Your task to perform on an android device: see creations saved in the google photos Image 0: 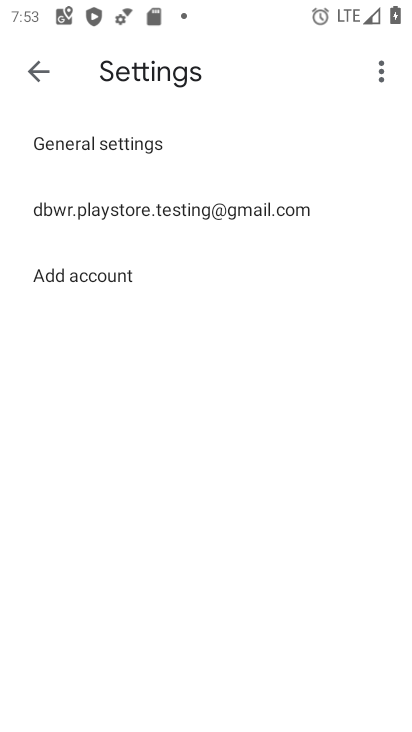
Step 0: press home button
Your task to perform on an android device: see creations saved in the google photos Image 1: 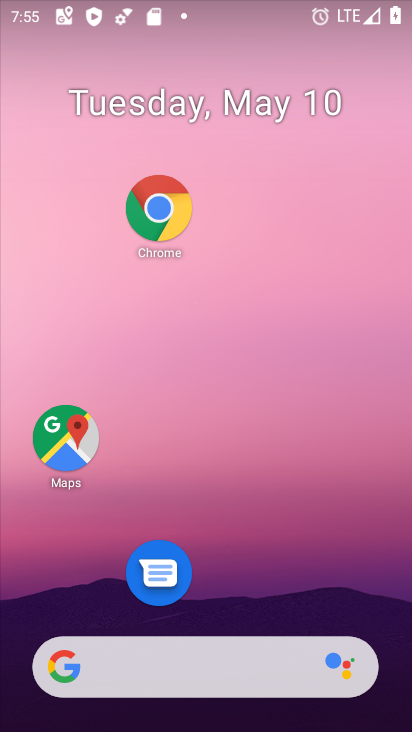
Step 1: drag from (274, 632) to (202, 418)
Your task to perform on an android device: see creations saved in the google photos Image 2: 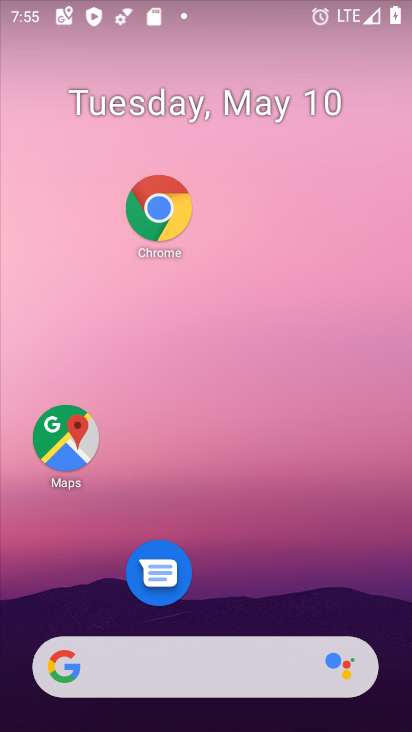
Step 2: drag from (265, 683) to (263, 269)
Your task to perform on an android device: see creations saved in the google photos Image 3: 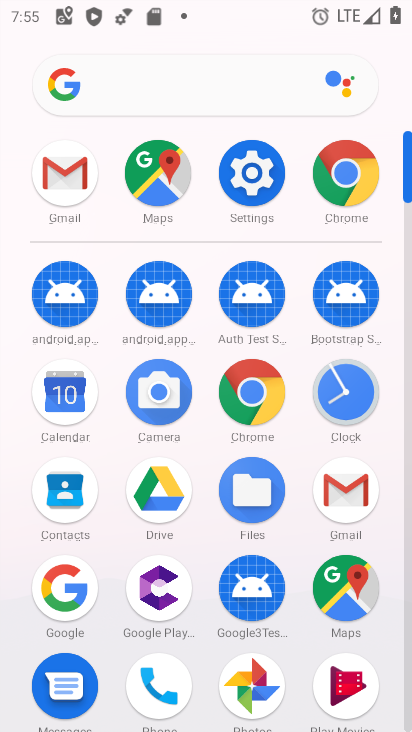
Step 3: click (251, 658)
Your task to perform on an android device: see creations saved in the google photos Image 4: 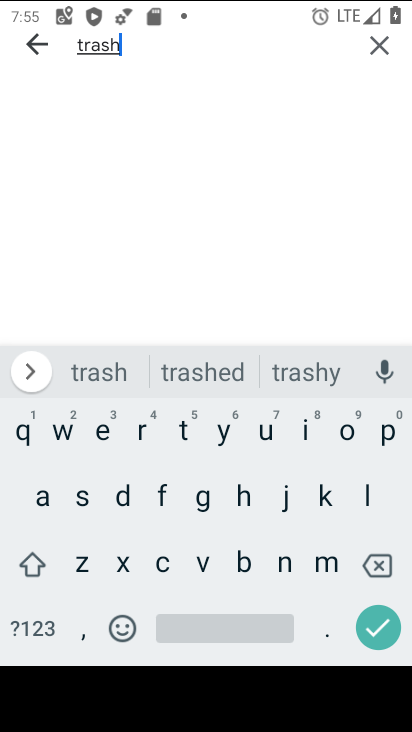
Step 4: click (42, 50)
Your task to perform on an android device: see creations saved in the google photos Image 5: 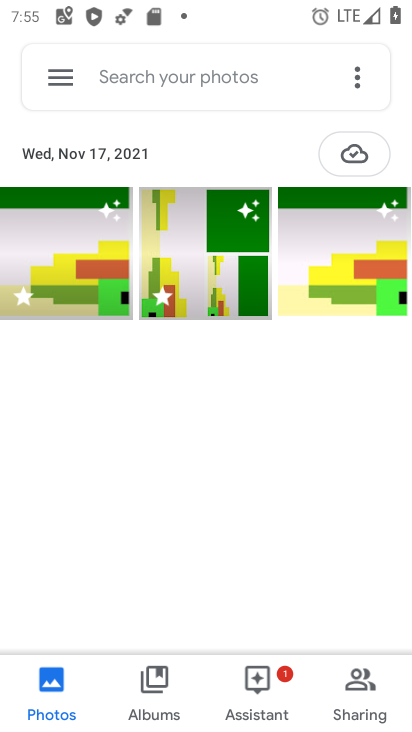
Step 5: click (244, 300)
Your task to perform on an android device: see creations saved in the google photos Image 6: 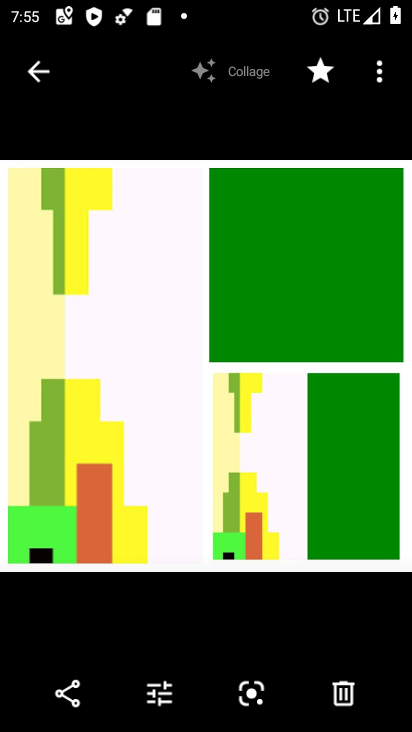
Step 6: click (400, 93)
Your task to perform on an android device: see creations saved in the google photos Image 7: 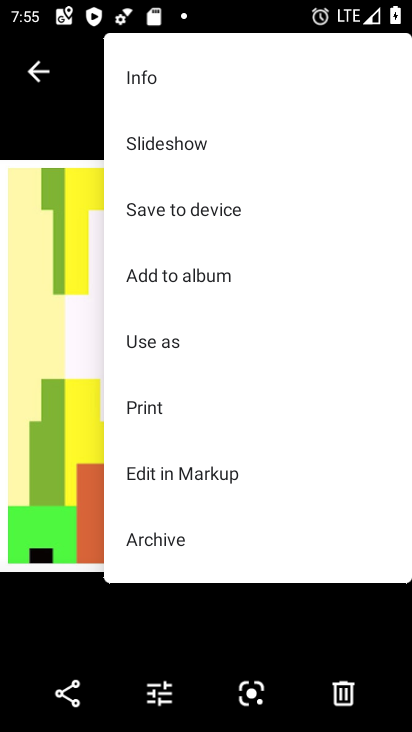
Step 7: click (240, 208)
Your task to perform on an android device: see creations saved in the google photos Image 8: 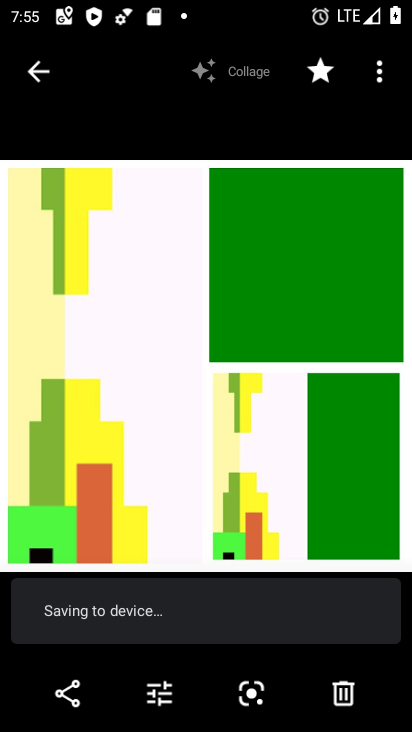
Step 8: task complete